Your task to perform on an android device: move a message to another label in the gmail app Image 0: 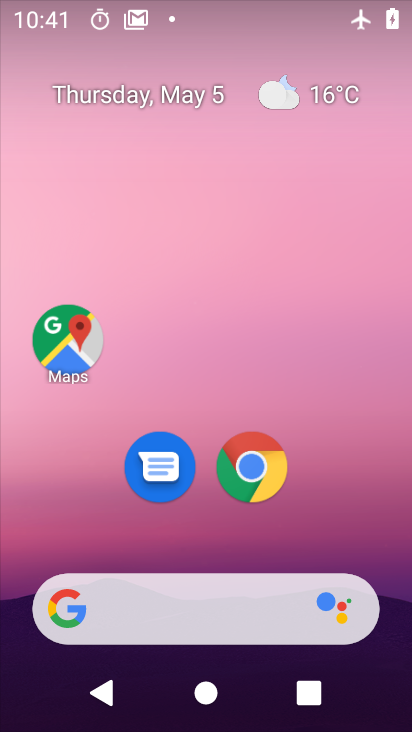
Step 0: drag from (197, 486) to (203, 100)
Your task to perform on an android device: move a message to another label in the gmail app Image 1: 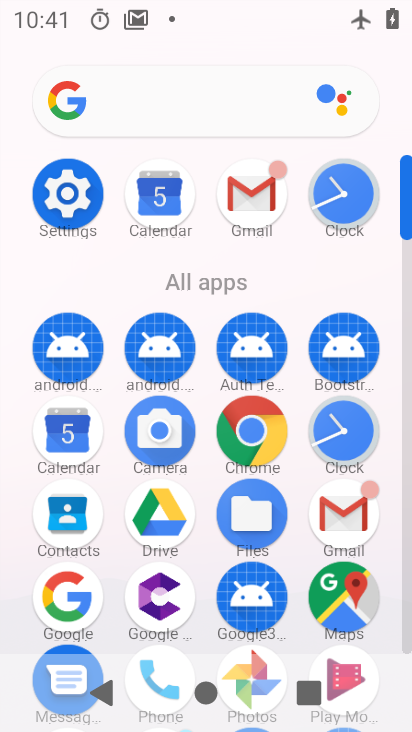
Step 1: click (250, 196)
Your task to perform on an android device: move a message to another label in the gmail app Image 2: 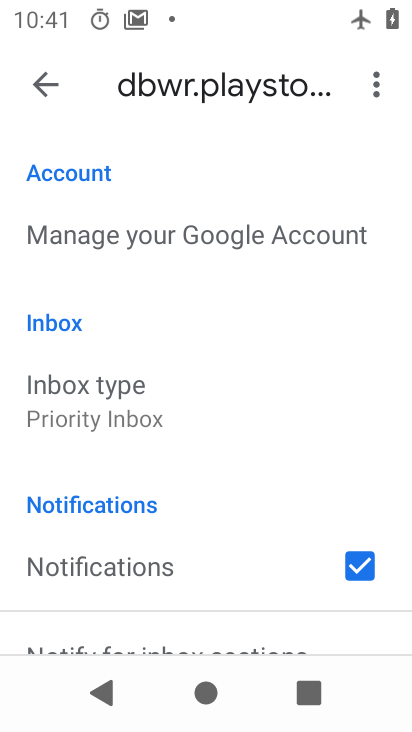
Step 2: click (40, 91)
Your task to perform on an android device: move a message to another label in the gmail app Image 3: 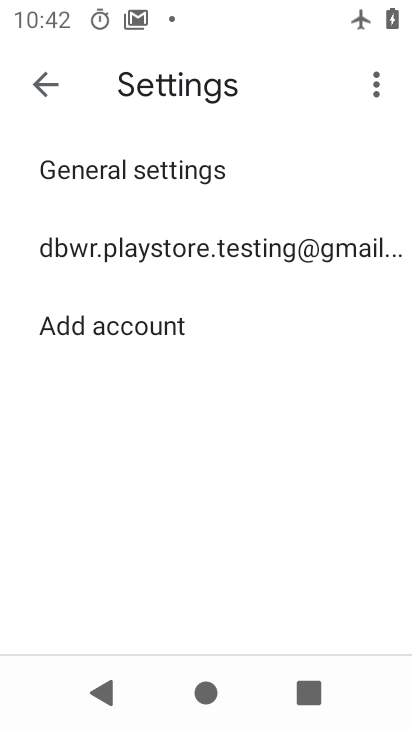
Step 3: click (40, 91)
Your task to perform on an android device: move a message to another label in the gmail app Image 4: 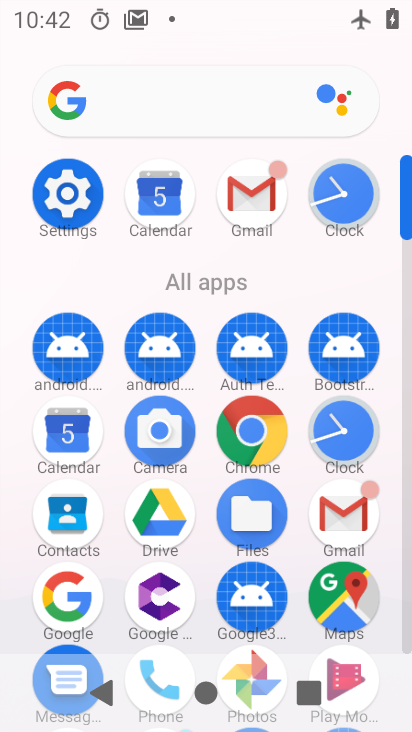
Step 4: click (234, 186)
Your task to perform on an android device: move a message to another label in the gmail app Image 5: 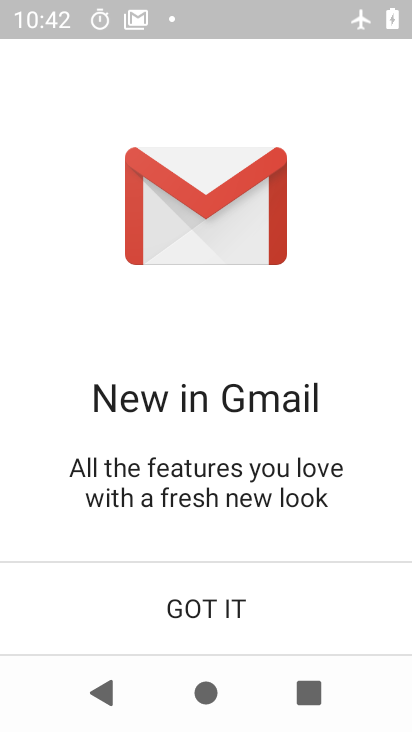
Step 5: click (225, 624)
Your task to perform on an android device: move a message to another label in the gmail app Image 6: 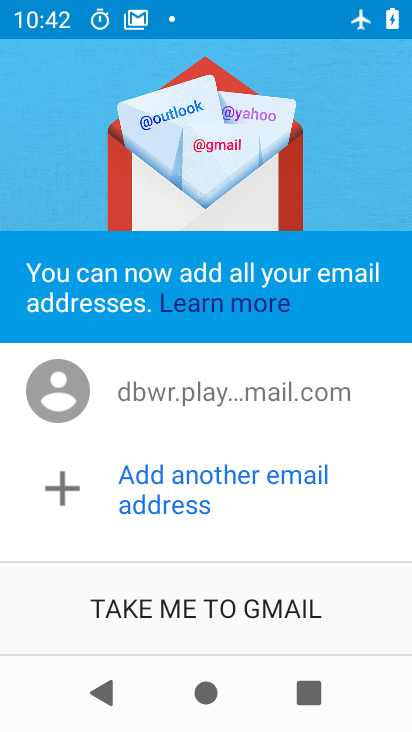
Step 6: click (225, 624)
Your task to perform on an android device: move a message to another label in the gmail app Image 7: 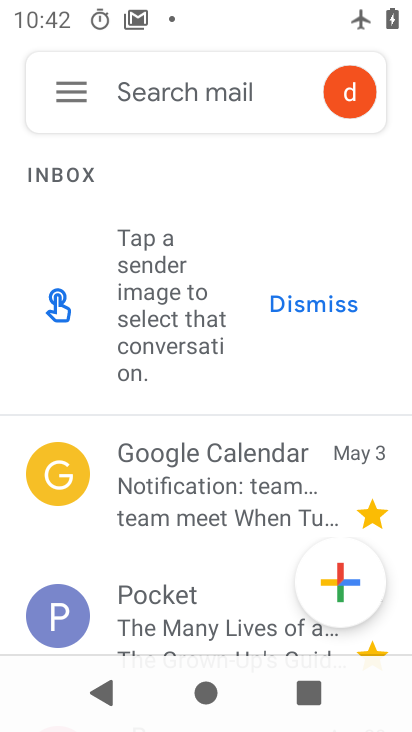
Step 7: click (186, 473)
Your task to perform on an android device: move a message to another label in the gmail app Image 8: 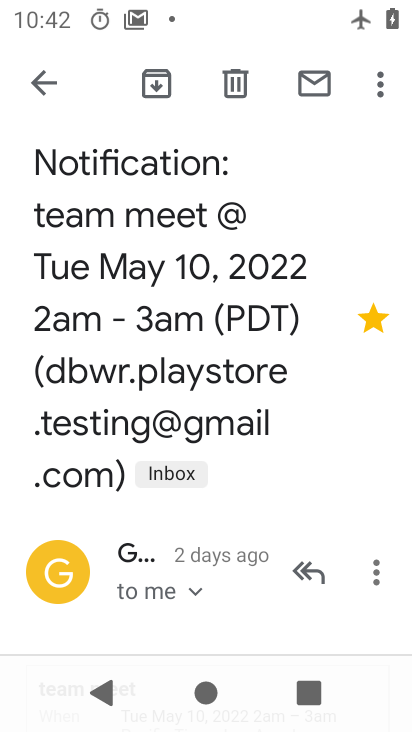
Step 8: click (383, 82)
Your task to perform on an android device: move a message to another label in the gmail app Image 9: 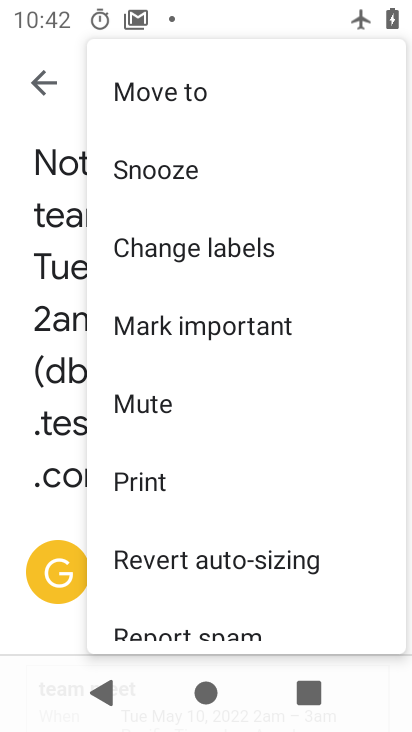
Step 9: click (248, 258)
Your task to perform on an android device: move a message to another label in the gmail app Image 10: 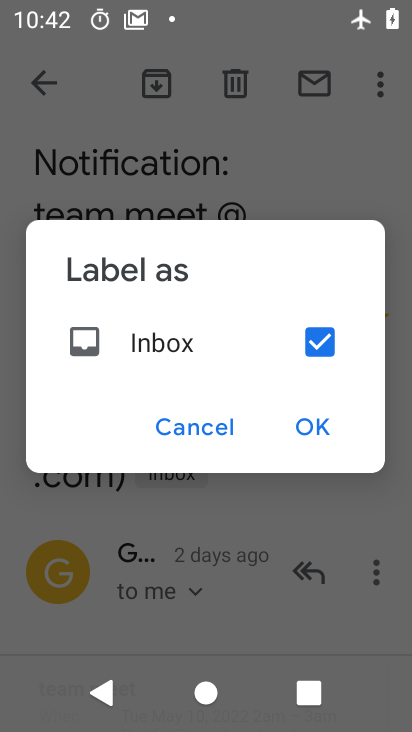
Step 10: click (318, 345)
Your task to perform on an android device: move a message to another label in the gmail app Image 11: 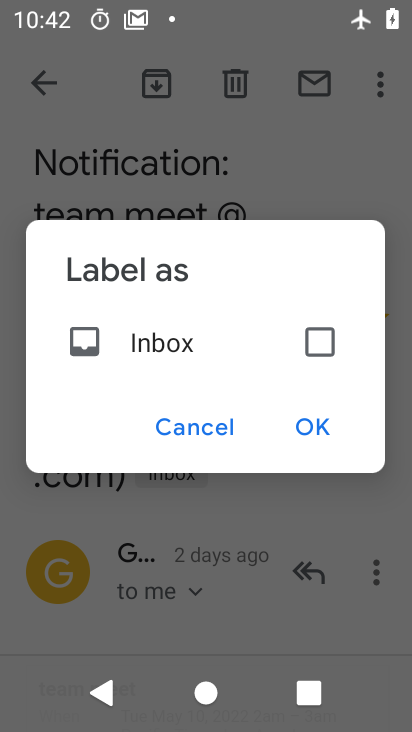
Step 11: click (309, 421)
Your task to perform on an android device: move a message to another label in the gmail app Image 12: 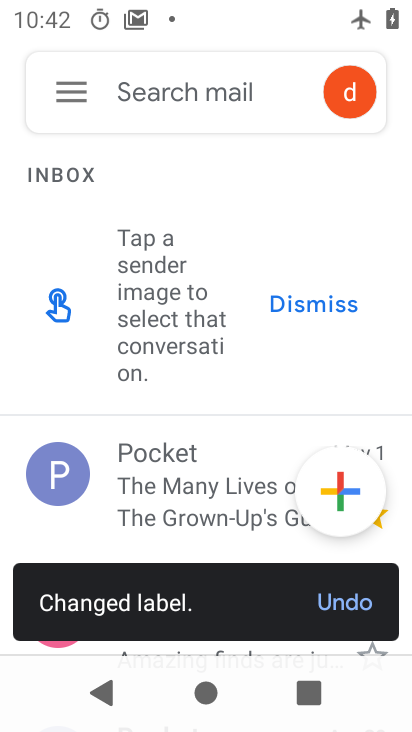
Step 12: task complete